Your task to perform on an android device: turn on airplane mode Image 0: 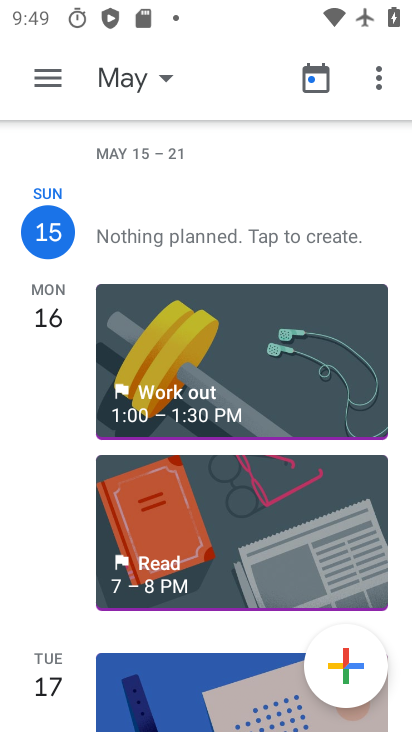
Step 0: press back button
Your task to perform on an android device: turn on airplane mode Image 1: 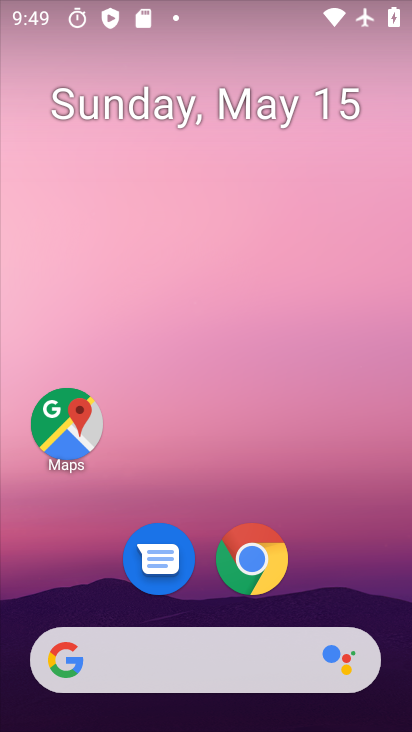
Step 1: drag from (300, 542) to (270, 115)
Your task to perform on an android device: turn on airplane mode Image 2: 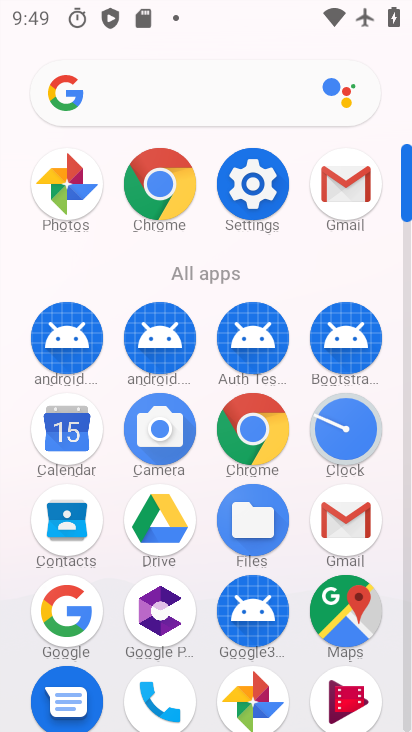
Step 2: click (244, 185)
Your task to perform on an android device: turn on airplane mode Image 3: 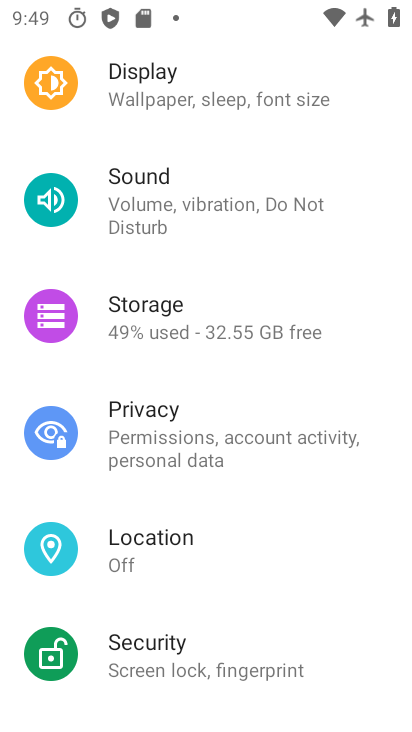
Step 3: drag from (185, 182) to (164, 572)
Your task to perform on an android device: turn on airplane mode Image 4: 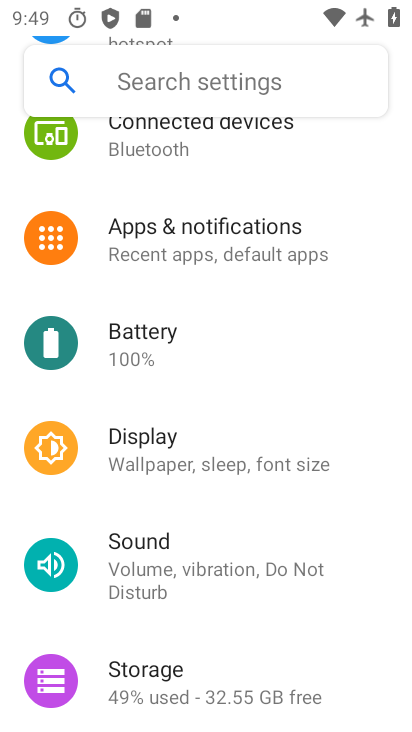
Step 4: drag from (187, 200) to (180, 573)
Your task to perform on an android device: turn on airplane mode Image 5: 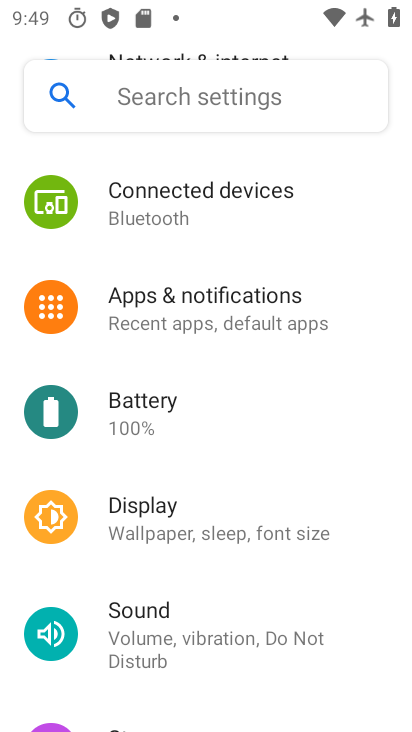
Step 5: drag from (173, 312) to (130, 715)
Your task to perform on an android device: turn on airplane mode Image 6: 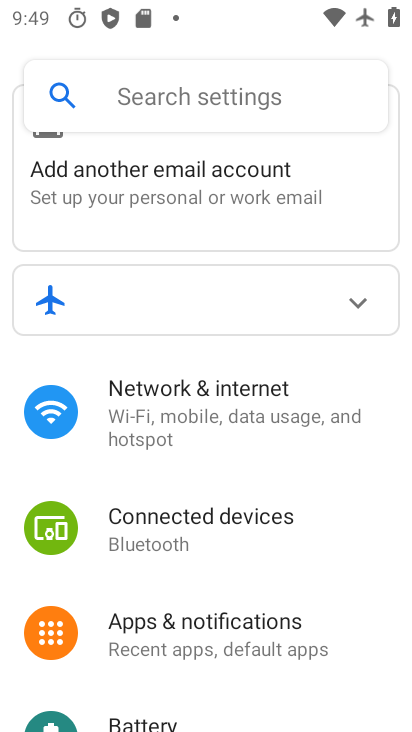
Step 6: click (195, 414)
Your task to perform on an android device: turn on airplane mode Image 7: 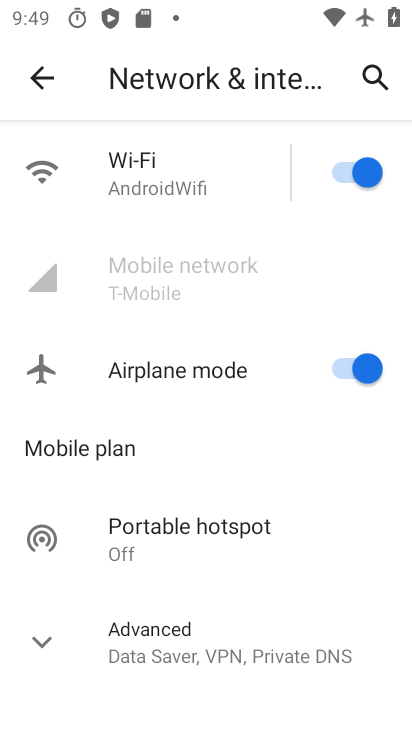
Step 7: task complete